Your task to perform on an android device: delete browsing data in the chrome app Image 0: 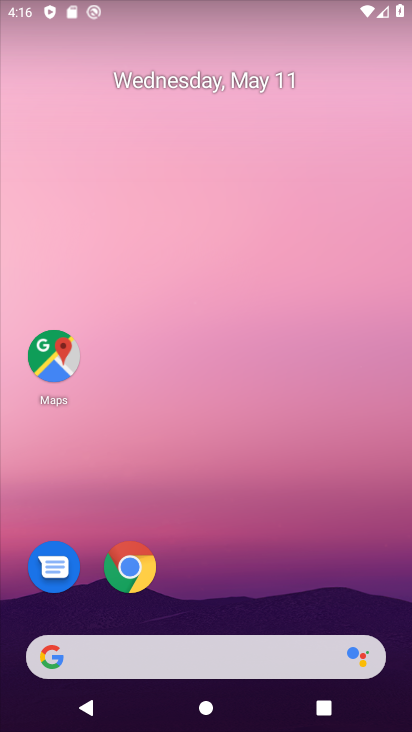
Step 0: click (144, 576)
Your task to perform on an android device: delete browsing data in the chrome app Image 1: 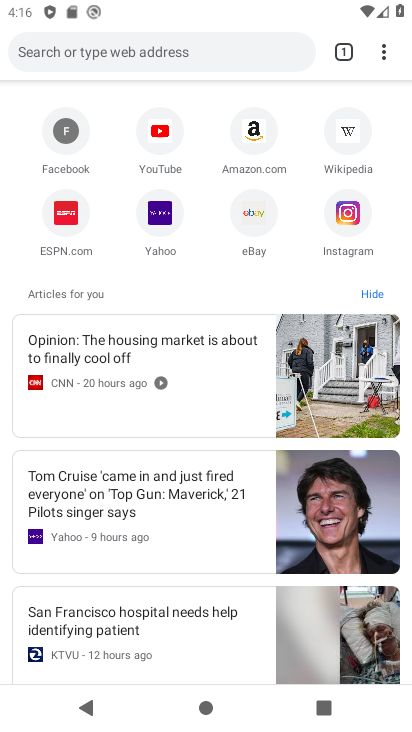
Step 1: click (385, 55)
Your task to perform on an android device: delete browsing data in the chrome app Image 2: 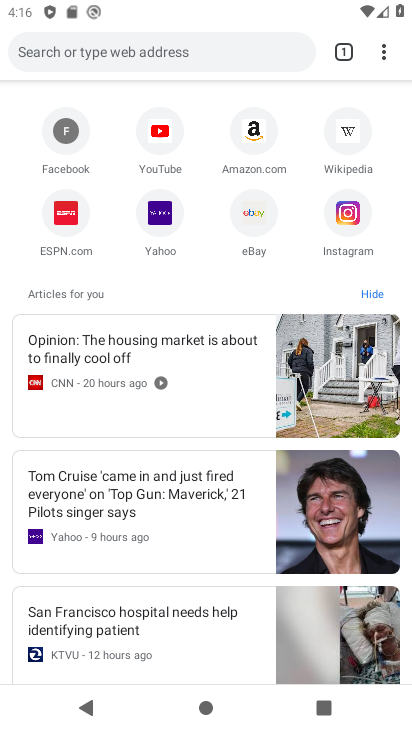
Step 2: task complete